Your task to perform on an android device: Go to Google maps Image 0: 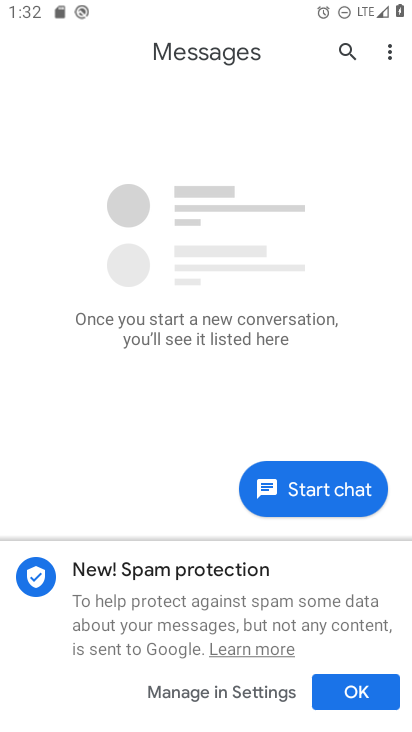
Step 0: press home button
Your task to perform on an android device: Go to Google maps Image 1: 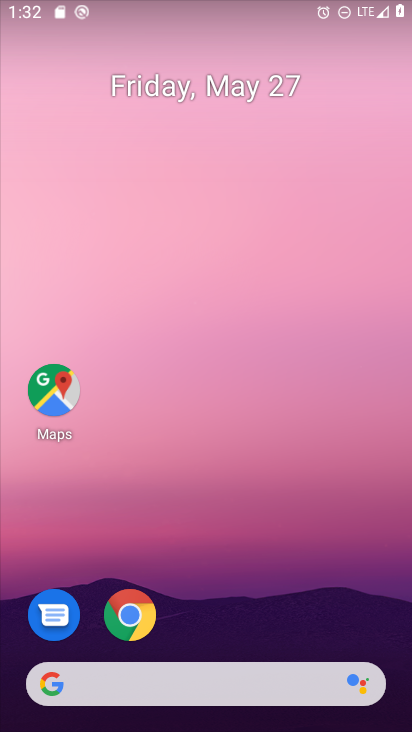
Step 1: drag from (321, 662) to (360, 106)
Your task to perform on an android device: Go to Google maps Image 2: 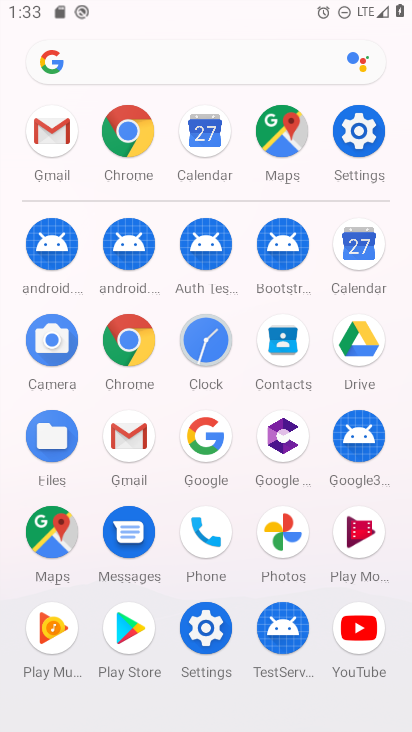
Step 2: click (53, 531)
Your task to perform on an android device: Go to Google maps Image 3: 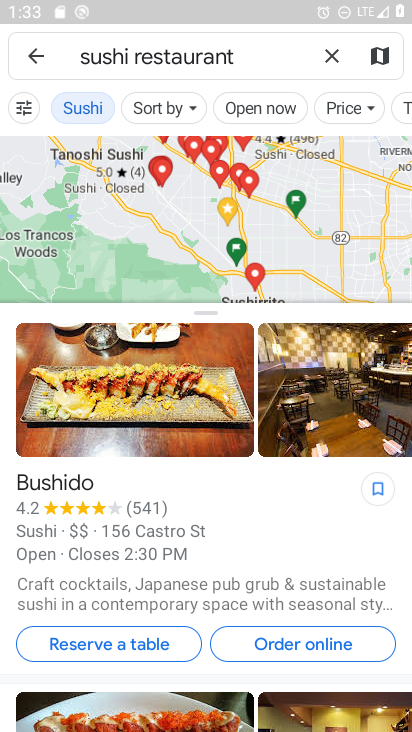
Step 3: task complete